Your task to perform on an android device: Open CNN.com Image 0: 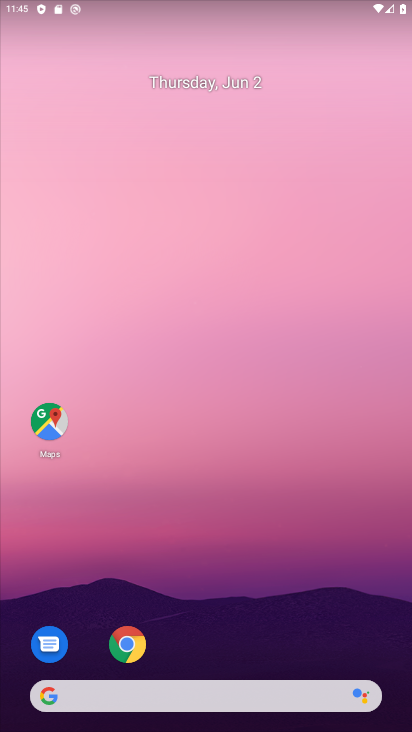
Step 0: click (127, 650)
Your task to perform on an android device: Open CNN.com Image 1: 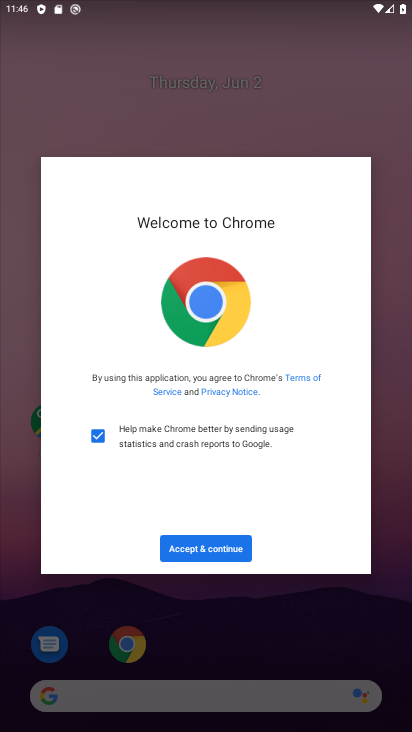
Step 1: click (203, 542)
Your task to perform on an android device: Open CNN.com Image 2: 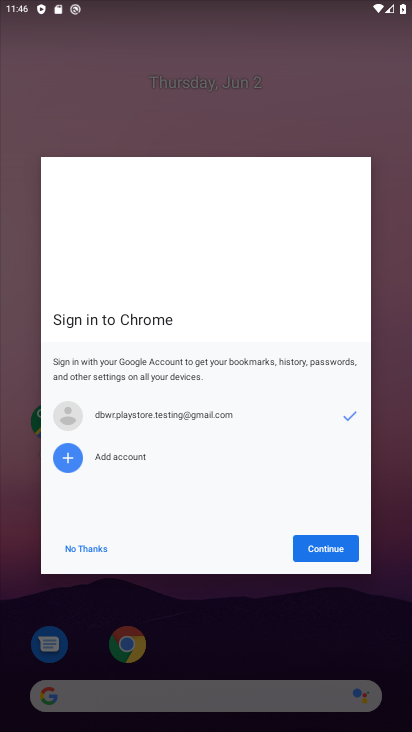
Step 2: click (332, 548)
Your task to perform on an android device: Open CNN.com Image 3: 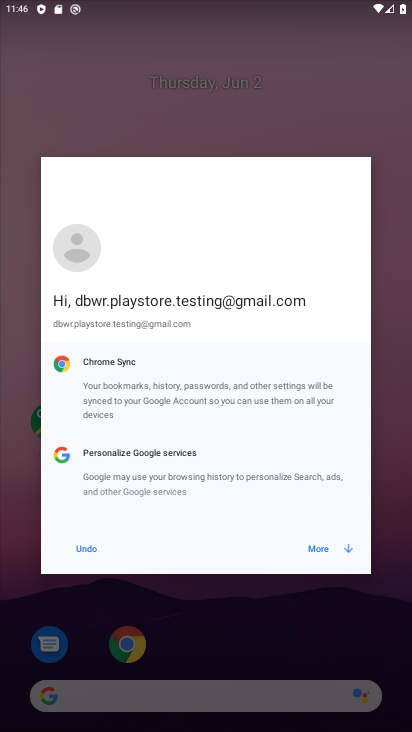
Step 3: click (313, 545)
Your task to perform on an android device: Open CNN.com Image 4: 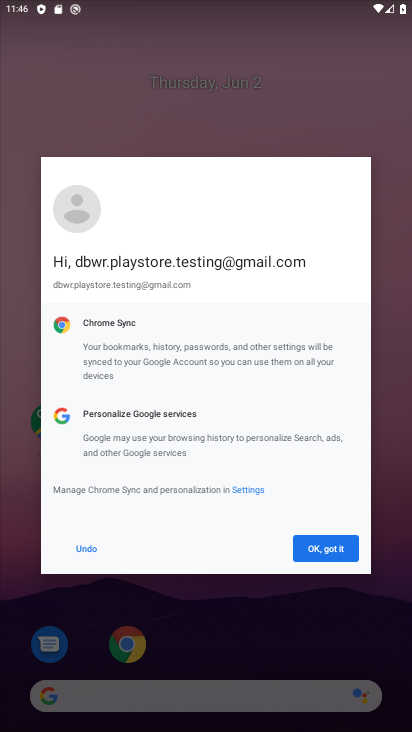
Step 4: click (313, 545)
Your task to perform on an android device: Open CNN.com Image 5: 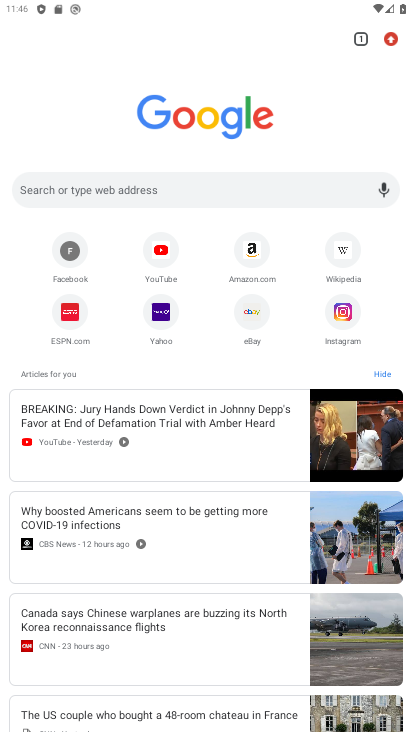
Step 5: click (187, 189)
Your task to perform on an android device: Open CNN.com Image 6: 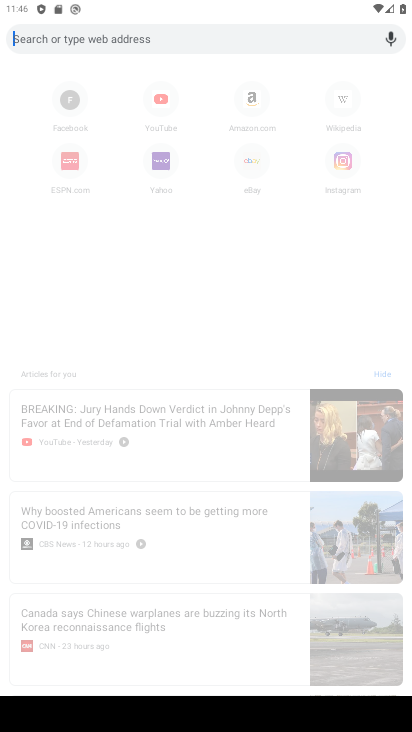
Step 6: type "CNN.com"
Your task to perform on an android device: Open CNN.com Image 7: 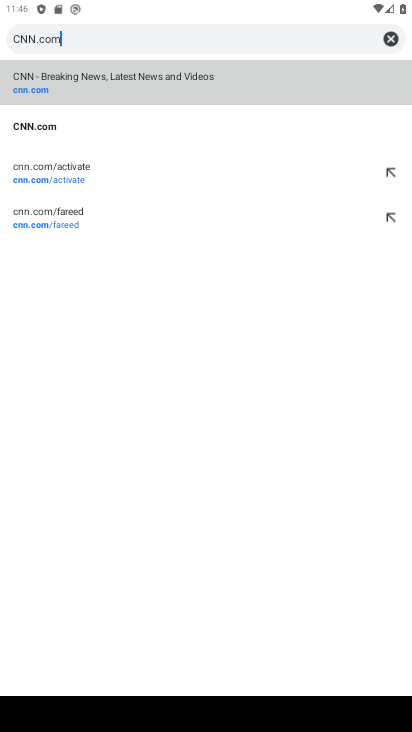
Step 7: click (166, 76)
Your task to perform on an android device: Open CNN.com Image 8: 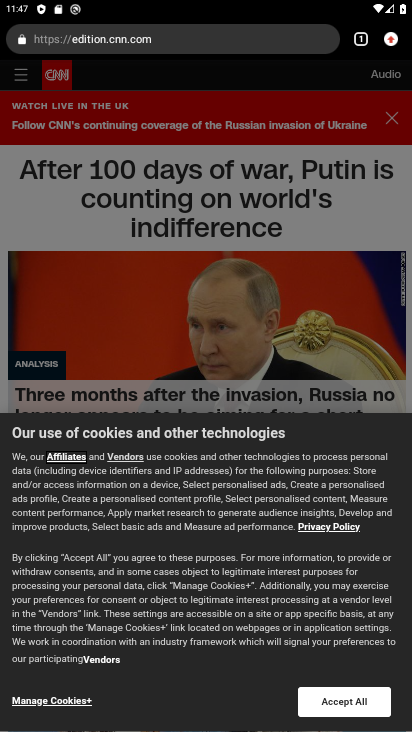
Step 8: task complete